Your task to perform on an android device: turn on the 24-hour format for clock Image 0: 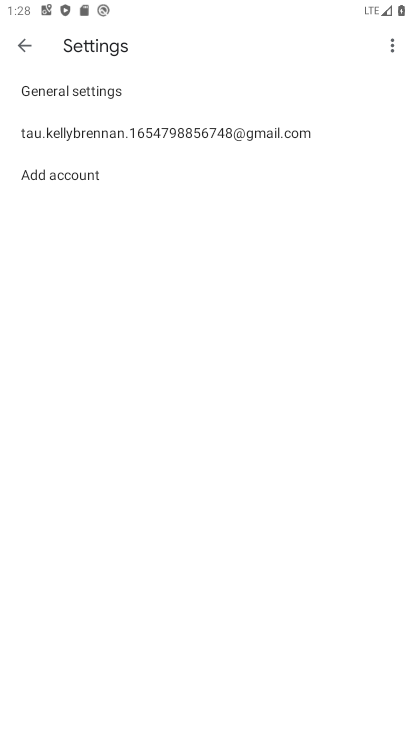
Step 0: press home button
Your task to perform on an android device: turn on the 24-hour format for clock Image 1: 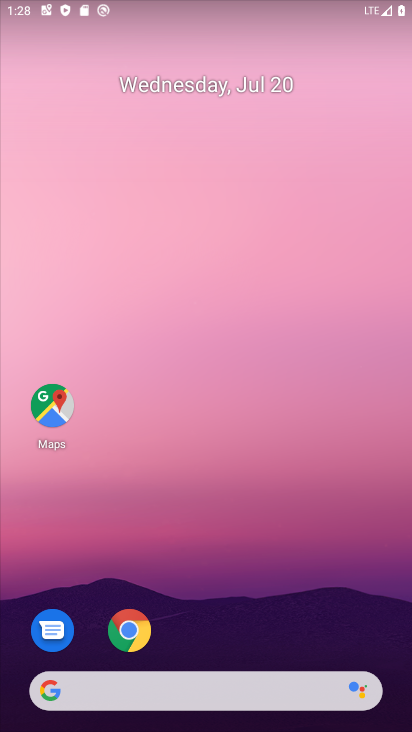
Step 1: drag from (313, 592) to (275, 150)
Your task to perform on an android device: turn on the 24-hour format for clock Image 2: 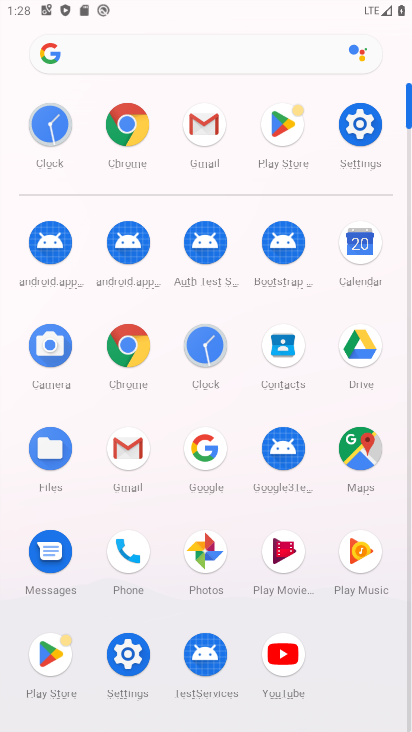
Step 2: click (194, 347)
Your task to perform on an android device: turn on the 24-hour format for clock Image 3: 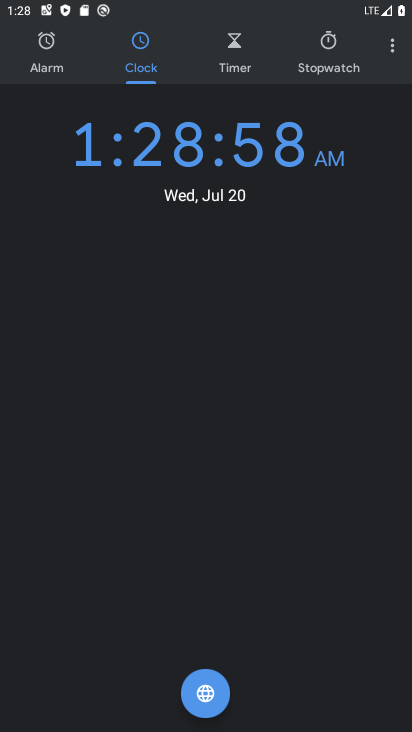
Step 3: click (393, 58)
Your task to perform on an android device: turn on the 24-hour format for clock Image 4: 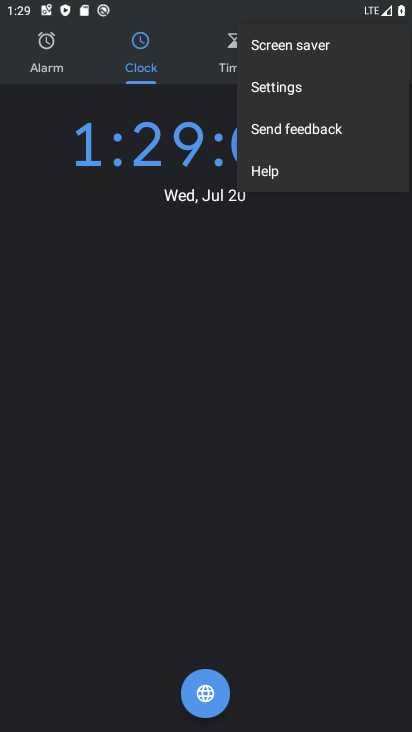
Step 4: click (290, 99)
Your task to perform on an android device: turn on the 24-hour format for clock Image 5: 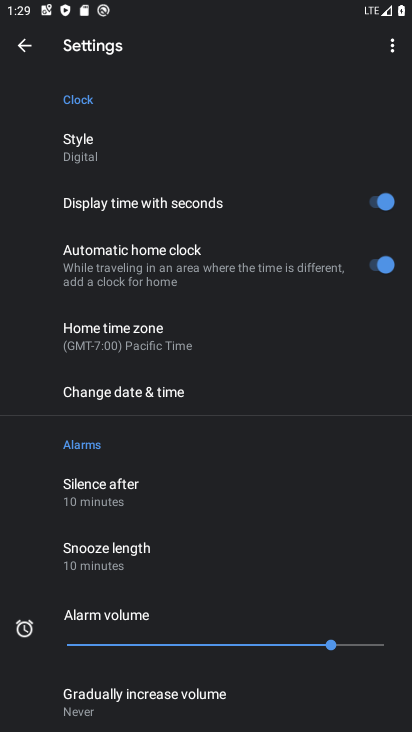
Step 5: click (158, 396)
Your task to perform on an android device: turn on the 24-hour format for clock Image 6: 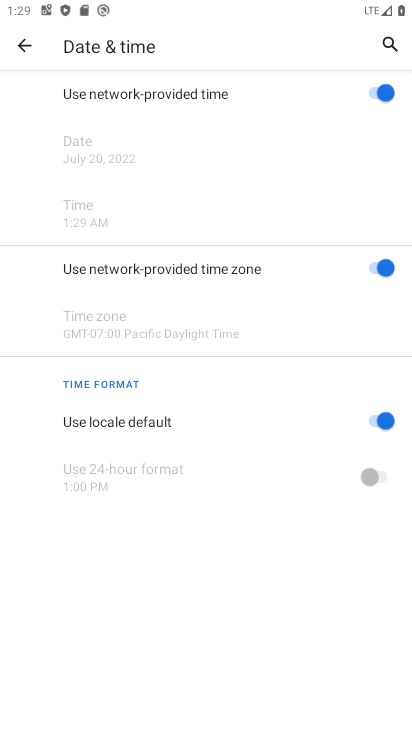
Step 6: click (364, 415)
Your task to perform on an android device: turn on the 24-hour format for clock Image 7: 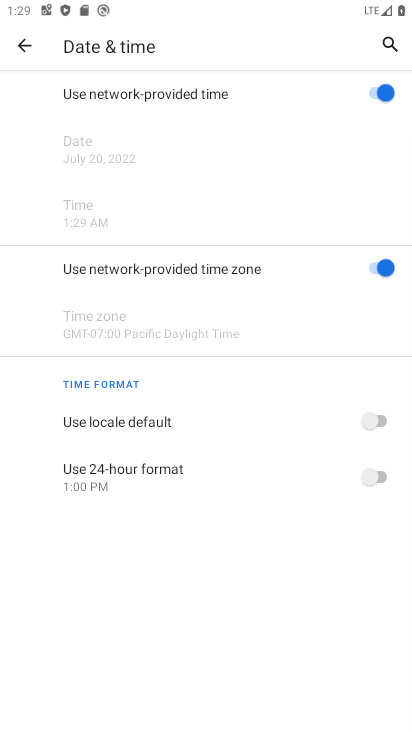
Step 7: click (374, 476)
Your task to perform on an android device: turn on the 24-hour format for clock Image 8: 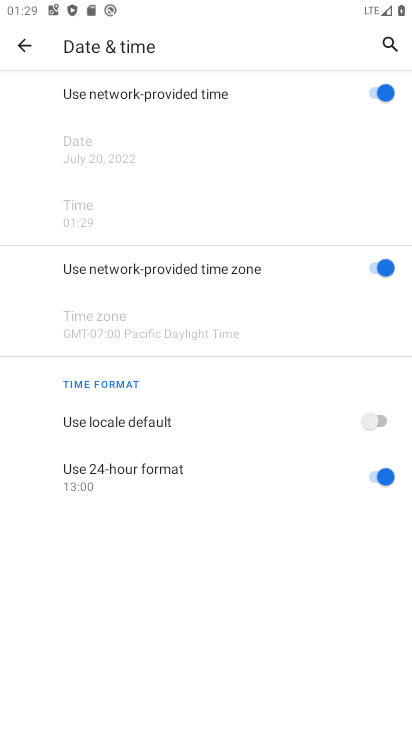
Step 8: task complete